Your task to perform on an android device: Go to Android settings Image 0: 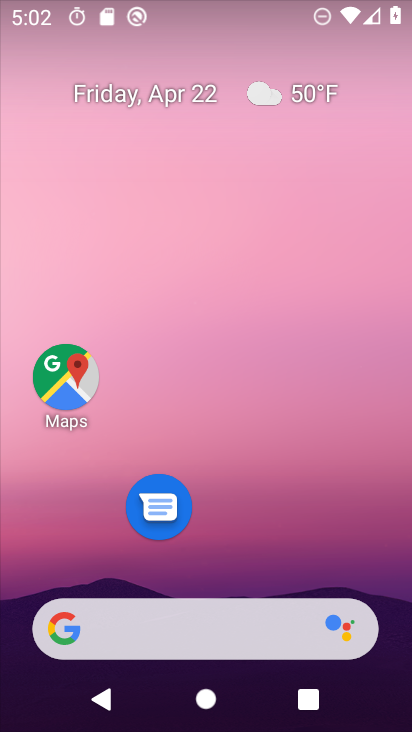
Step 0: drag from (230, 353) to (290, 95)
Your task to perform on an android device: Go to Android settings Image 1: 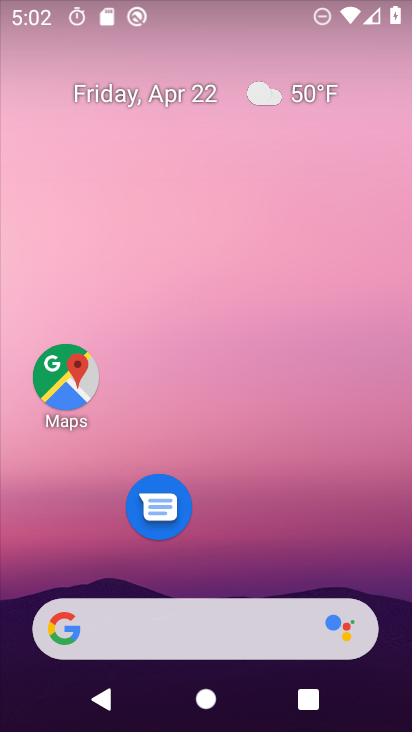
Step 1: drag from (217, 563) to (262, 186)
Your task to perform on an android device: Go to Android settings Image 2: 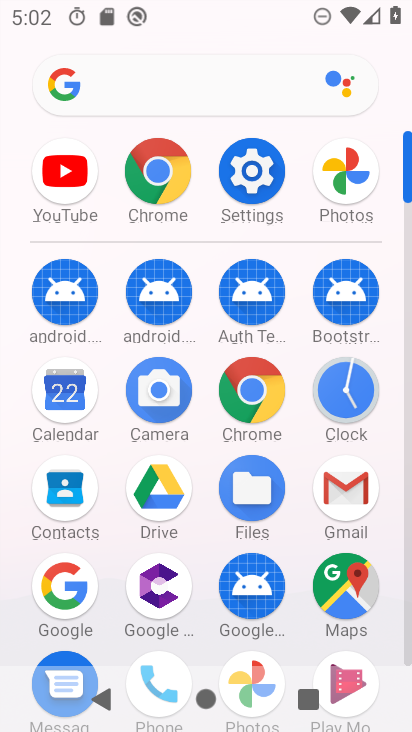
Step 2: click (259, 186)
Your task to perform on an android device: Go to Android settings Image 3: 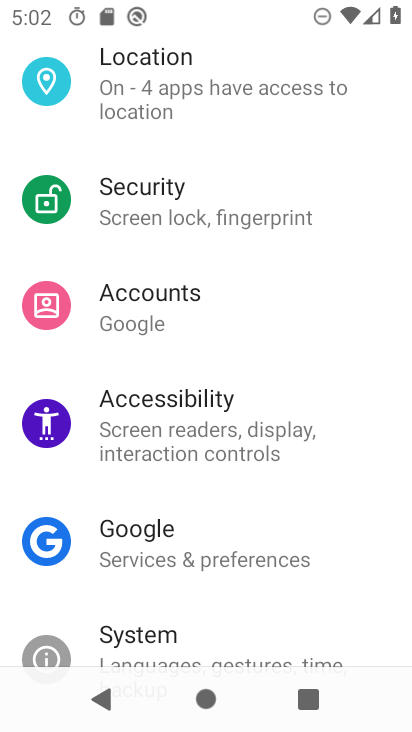
Step 3: task complete